Your task to perform on an android device: Open display settings Image 0: 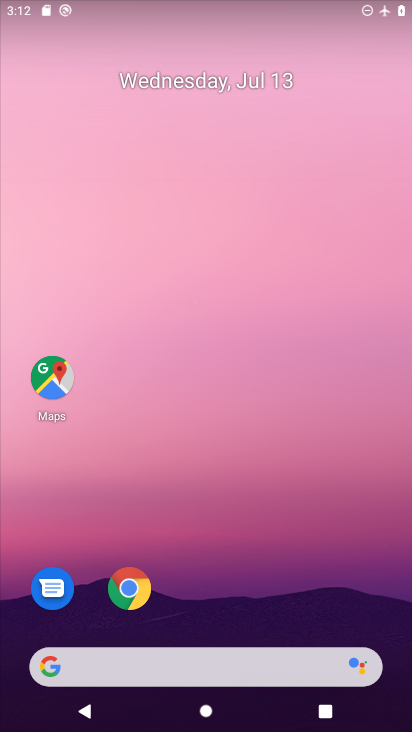
Step 0: drag from (199, 628) to (141, 80)
Your task to perform on an android device: Open display settings Image 1: 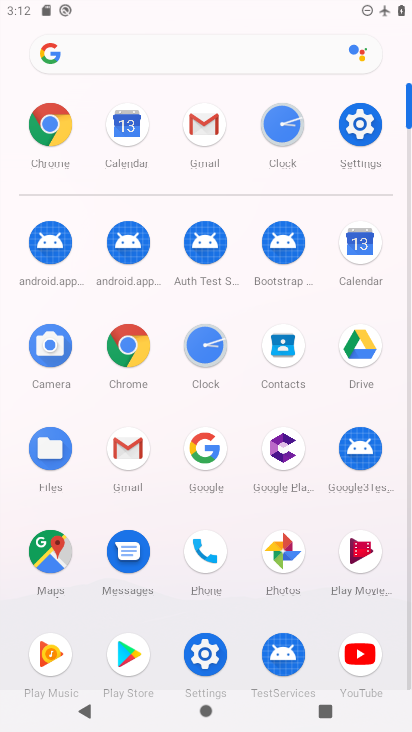
Step 1: click (359, 127)
Your task to perform on an android device: Open display settings Image 2: 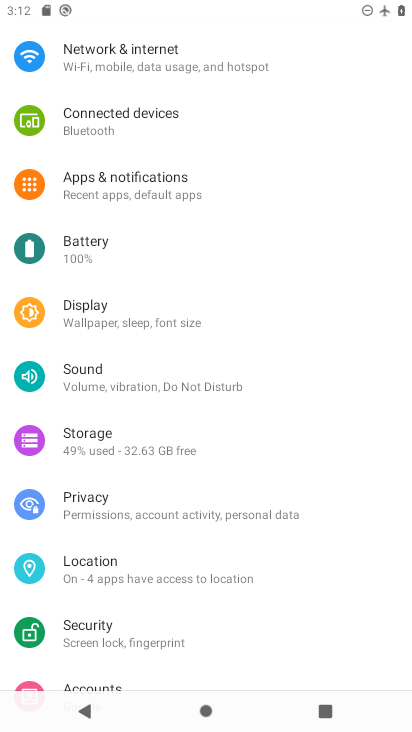
Step 2: click (151, 318)
Your task to perform on an android device: Open display settings Image 3: 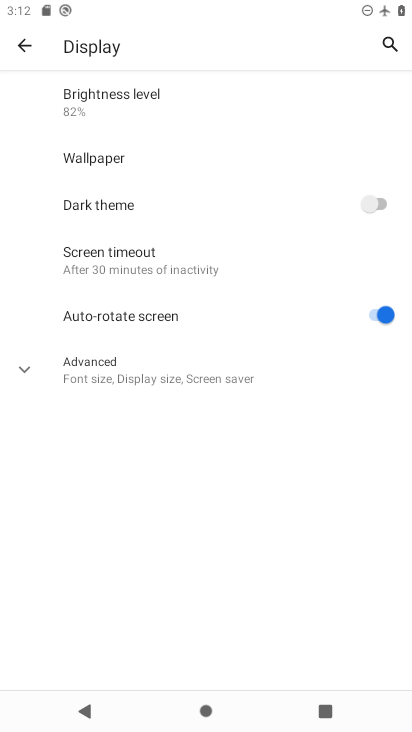
Step 3: click (131, 360)
Your task to perform on an android device: Open display settings Image 4: 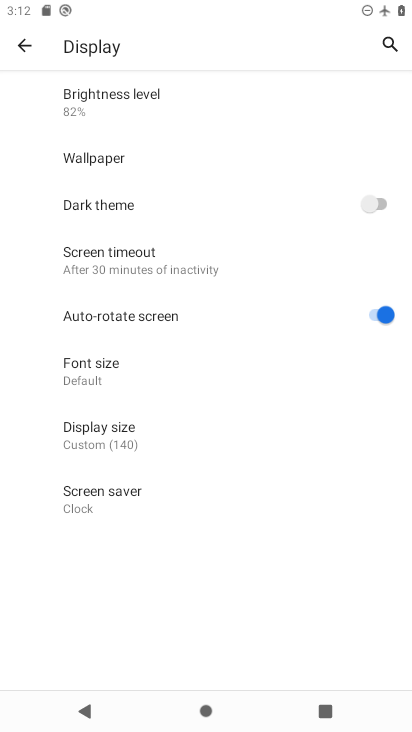
Step 4: task complete